Your task to perform on an android device: When is my next appointment? Image 0: 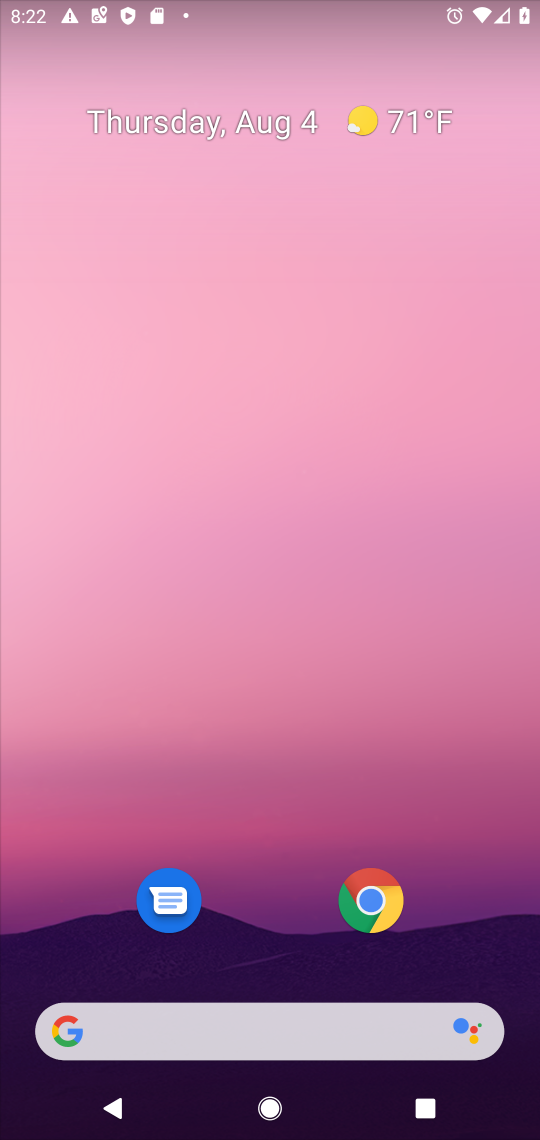
Step 0: drag from (237, 1034) to (244, 184)
Your task to perform on an android device: When is my next appointment? Image 1: 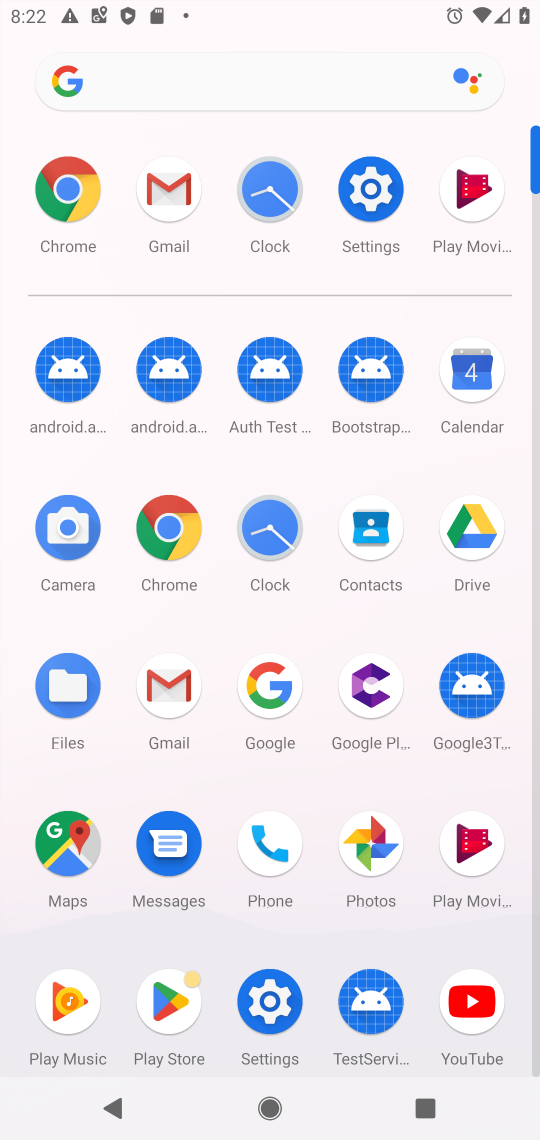
Step 1: click (473, 379)
Your task to perform on an android device: When is my next appointment? Image 2: 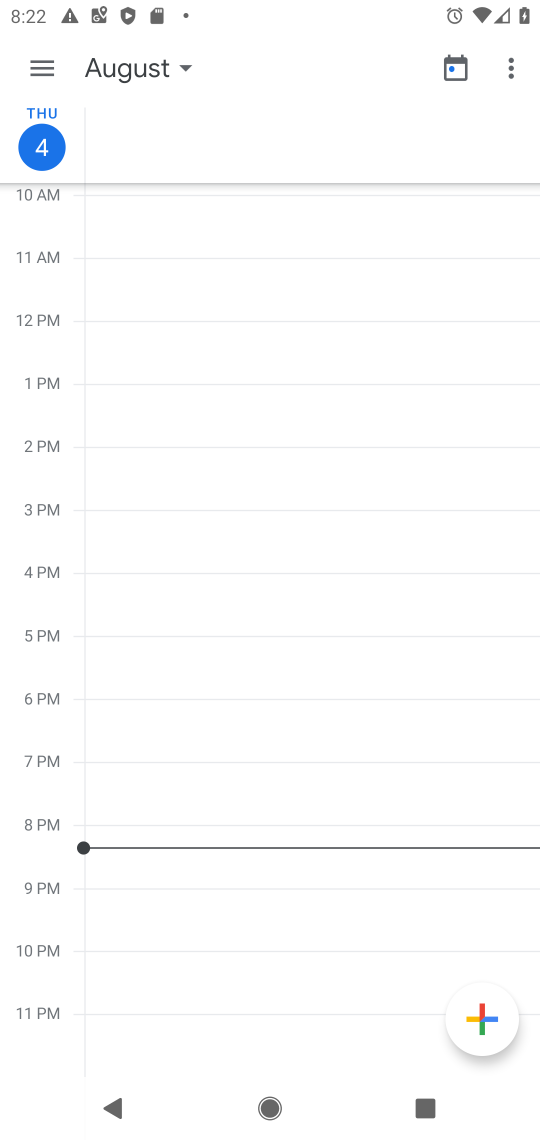
Step 2: click (460, 72)
Your task to perform on an android device: When is my next appointment? Image 3: 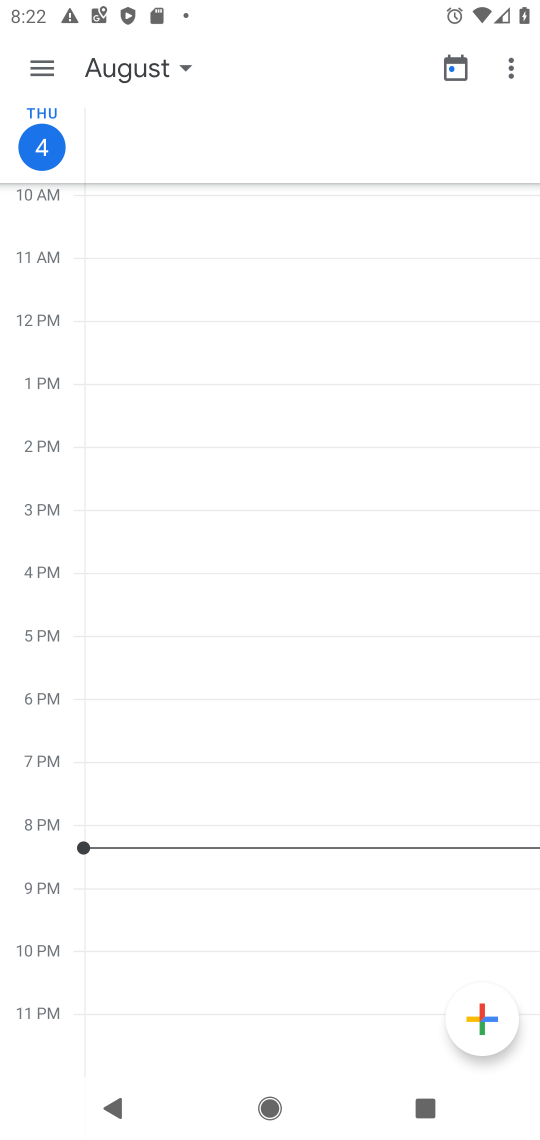
Step 3: click (460, 72)
Your task to perform on an android device: When is my next appointment? Image 4: 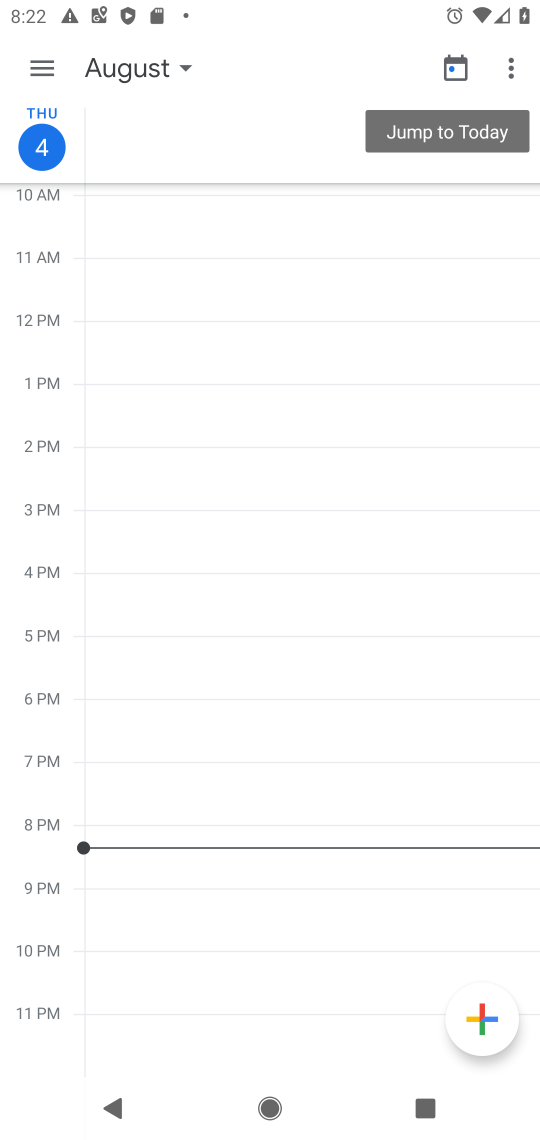
Step 4: click (189, 57)
Your task to perform on an android device: When is my next appointment? Image 5: 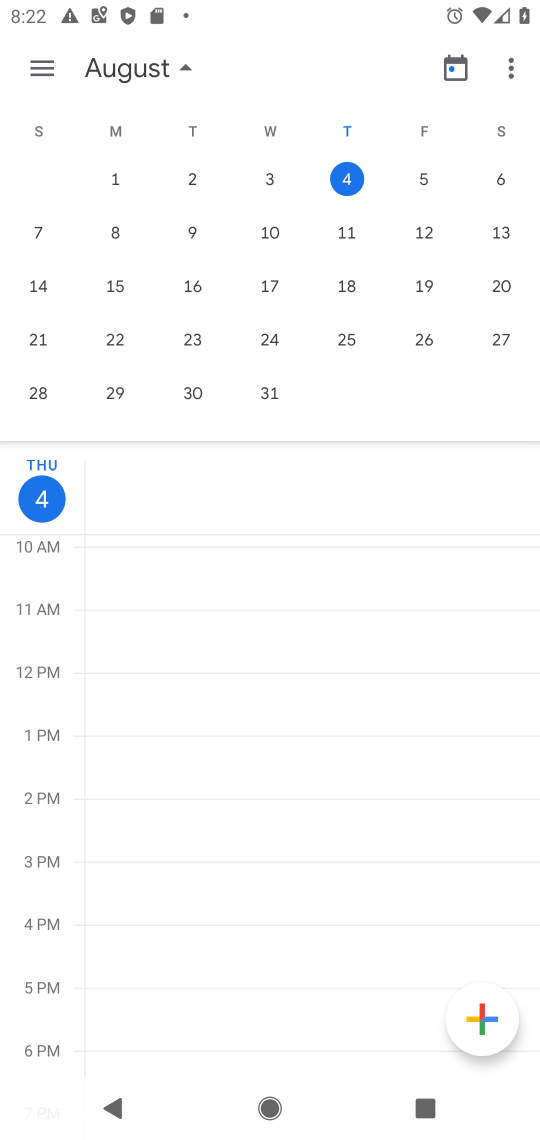
Step 5: click (497, 175)
Your task to perform on an android device: When is my next appointment? Image 6: 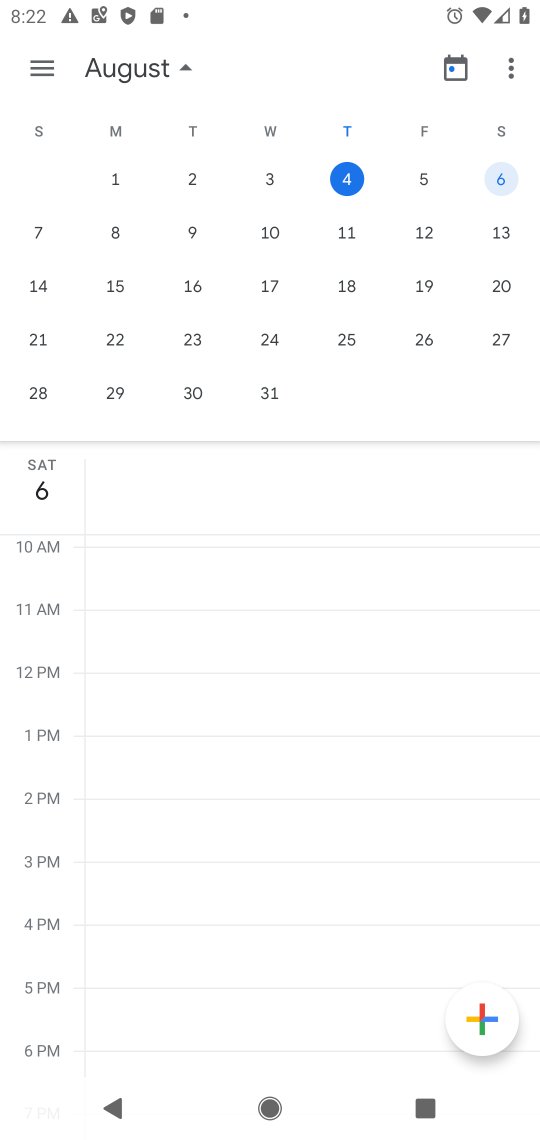
Step 6: click (19, 61)
Your task to perform on an android device: When is my next appointment? Image 7: 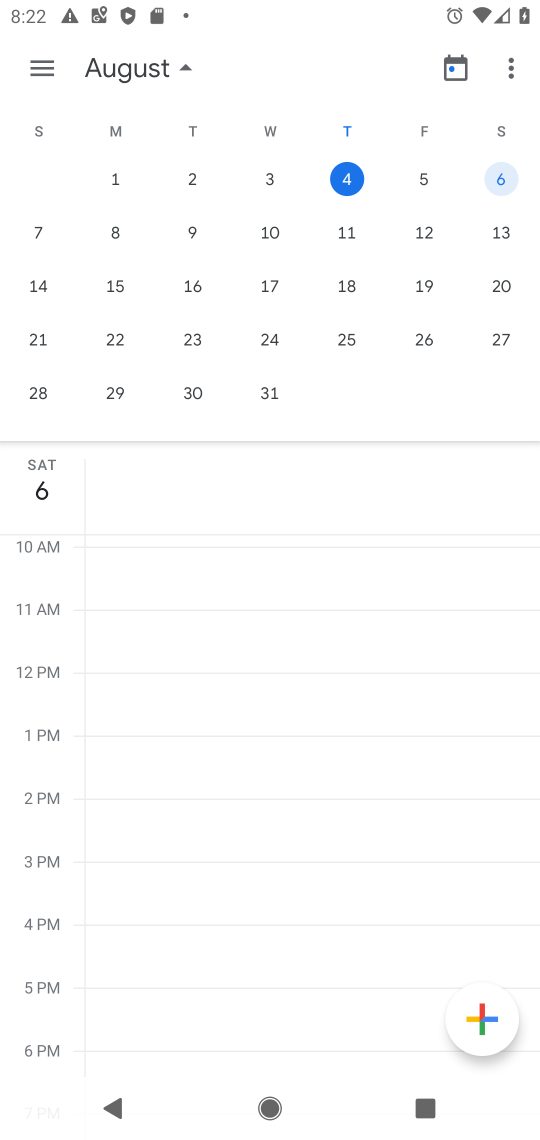
Step 7: click (53, 70)
Your task to perform on an android device: When is my next appointment? Image 8: 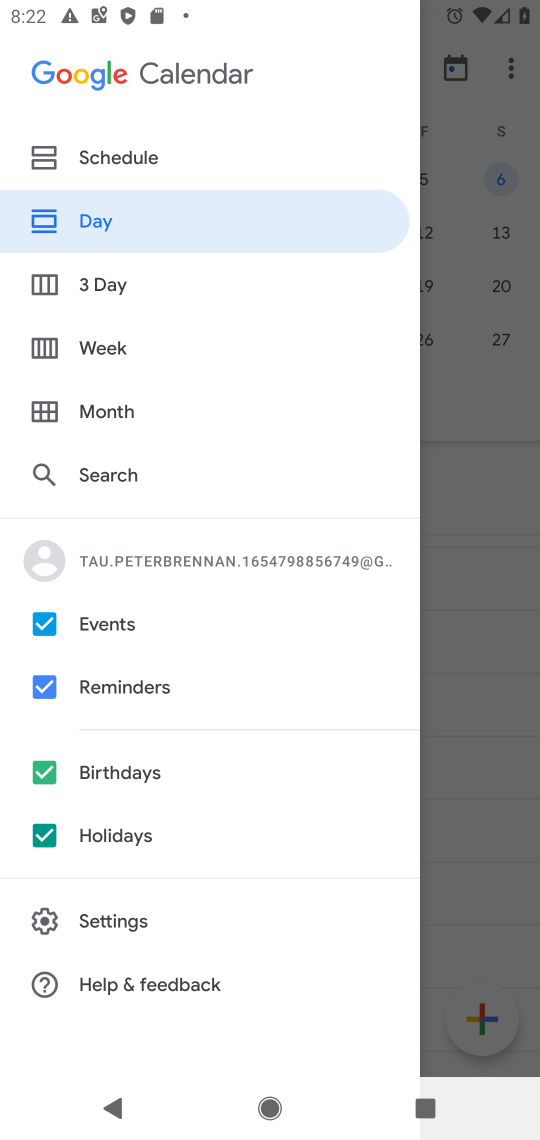
Step 8: click (85, 149)
Your task to perform on an android device: When is my next appointment? Image 9: 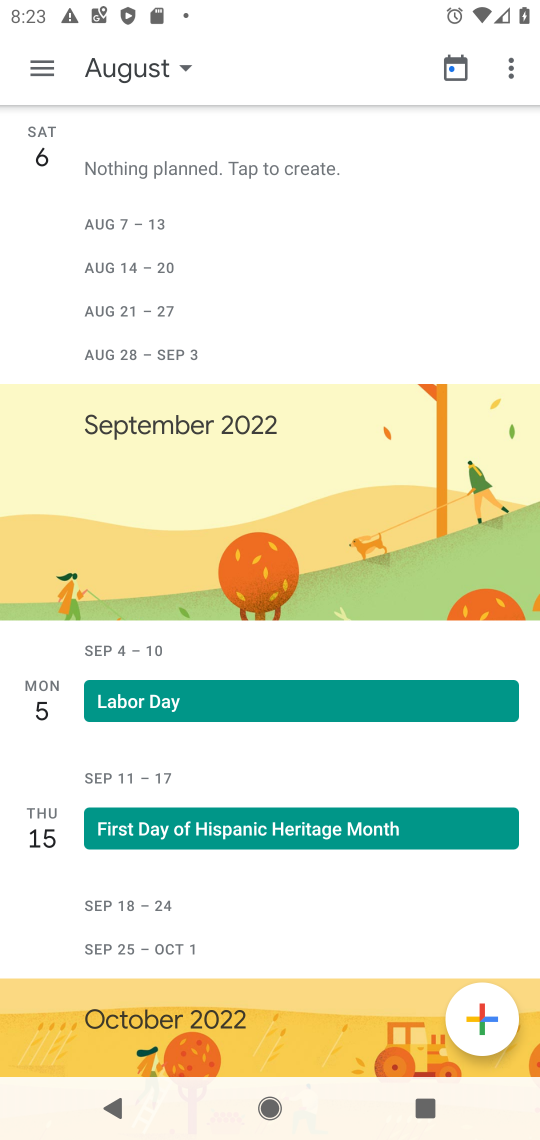
Step 9: click (257, 172)
Your task to perform on an android device: When is my next appointment? Image 10: 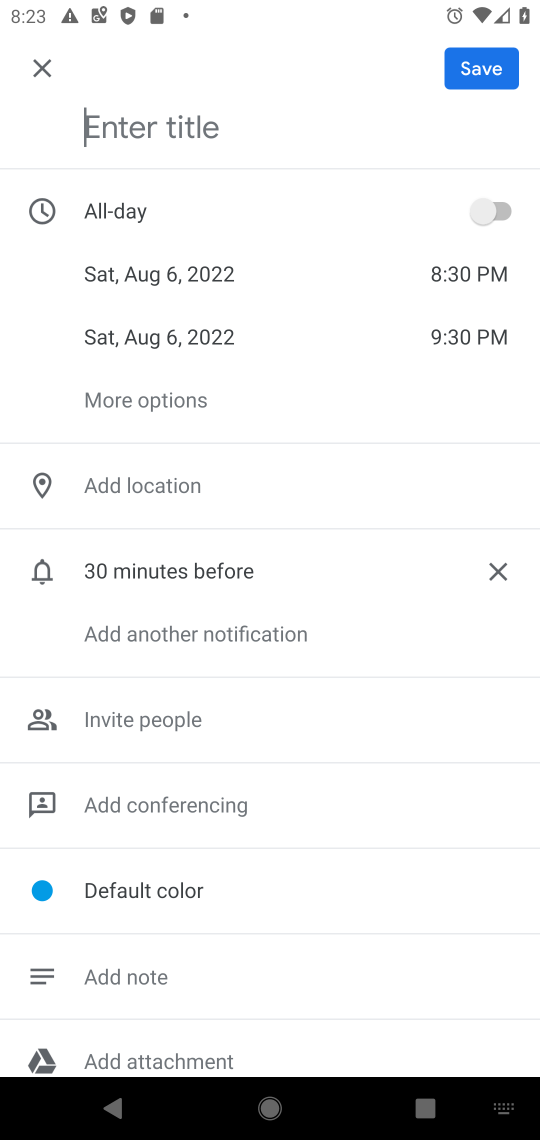
Step 10: type "Mexi"
Your task to perform on an android device: When is my next appointment? Image 11: 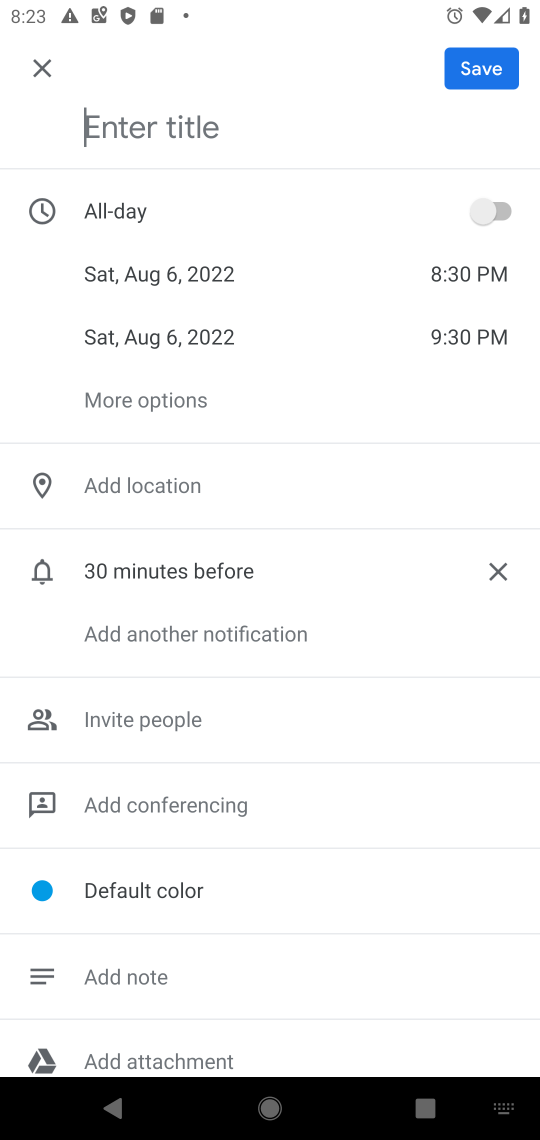
Step 11: click (499, 212)
Your task to perform on an android device: When is my next appointment? Image 12: 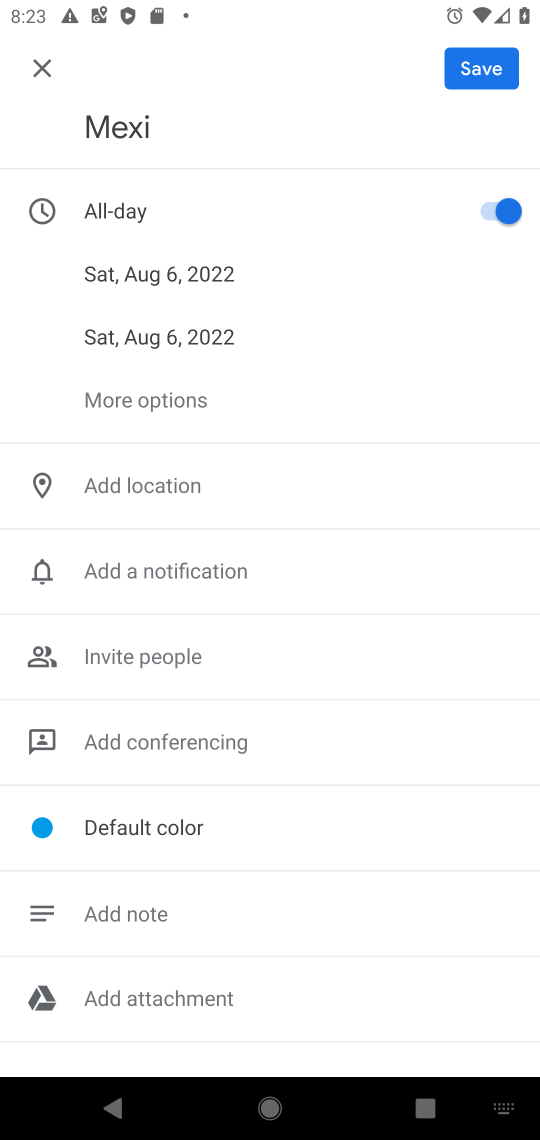
Step 12: click (480, 79)
Your task to perform on an android device: When is my next appointment? Image 13: 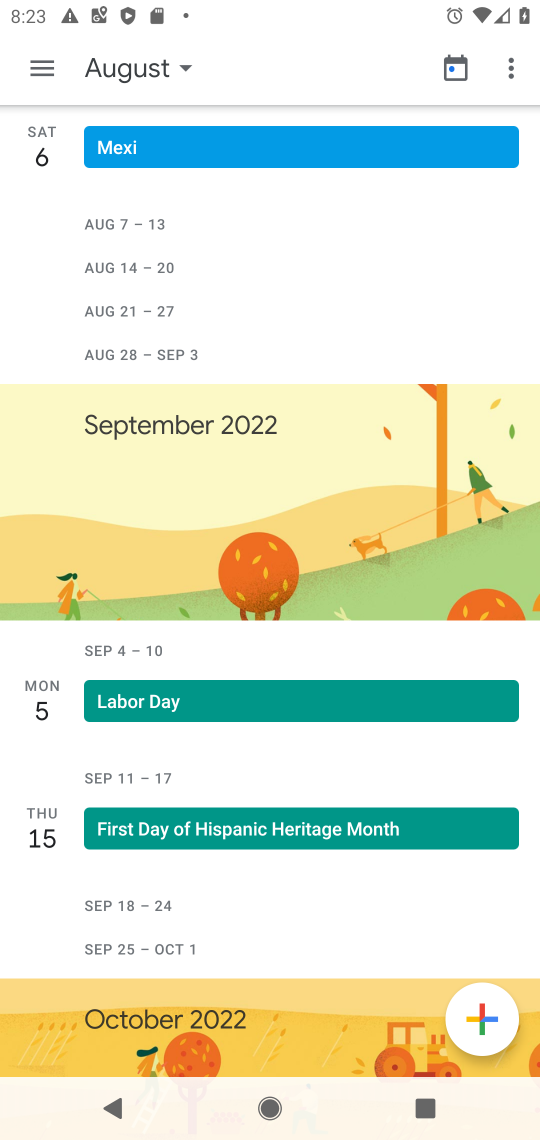
Step 13: task complete